Your task to perform on an android device: snooze an email in the gmail app Image 0: 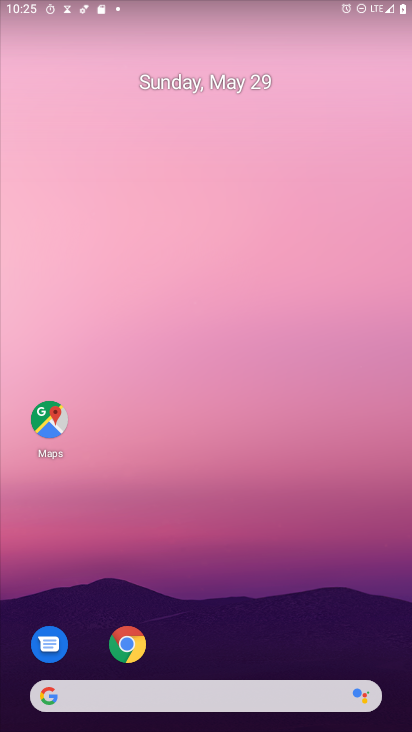
Step 0: drag from (130, 721) to (209, 109)
Your task to perform on an android device: snooze an email in the gmail app Image 1: 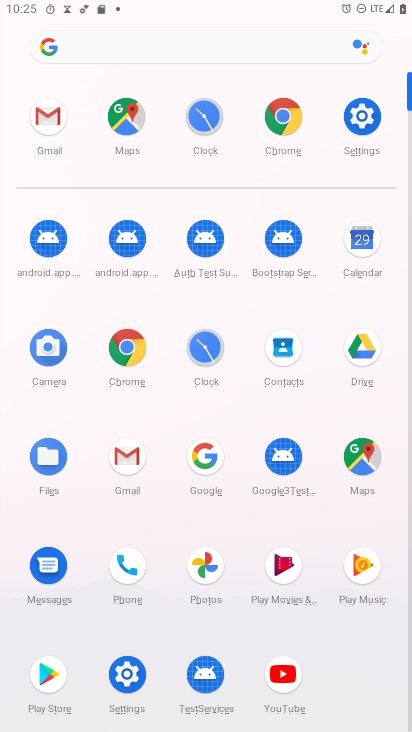
Step 1: click (133, 464)
Your task to perform on an android device: snooze an email in the gmail app Image 2: 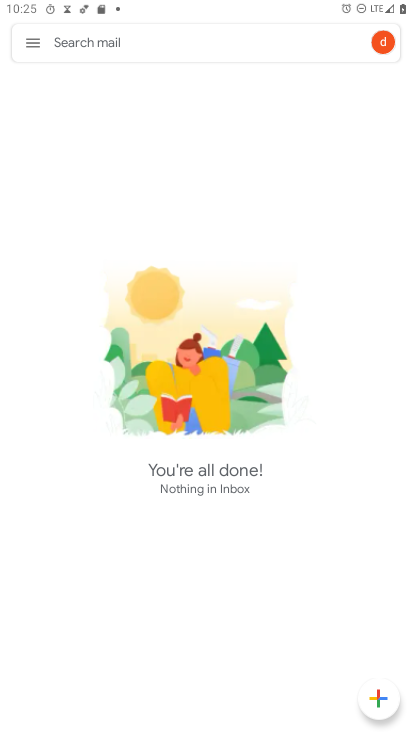
Step 2: click (29, 39)
Your task to perform on an android device: snooze an email in the gmail app Image 3: 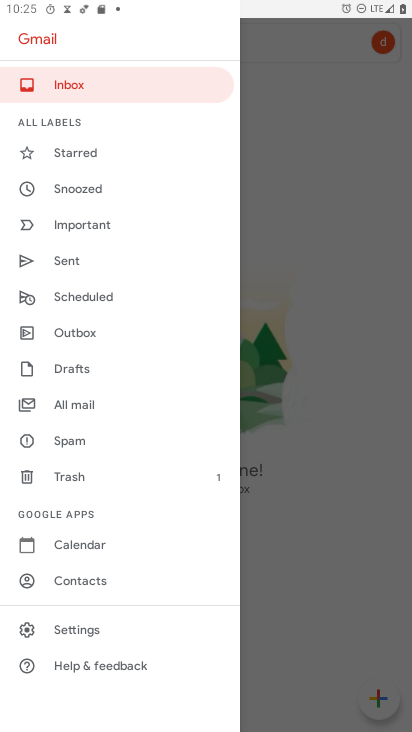
Step 3: click (91, 414)
Your task to perform on an android device: snooze an email in the gmail app Image 4: 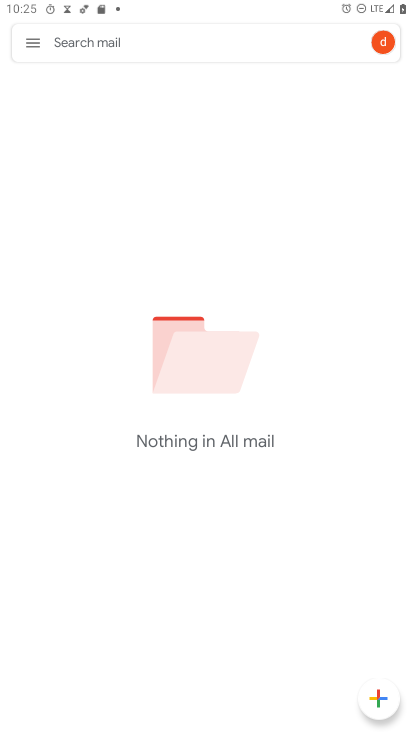
Step 4: task complete